Your task to perform on an android device: delete a single message in the gmail app Image 0: 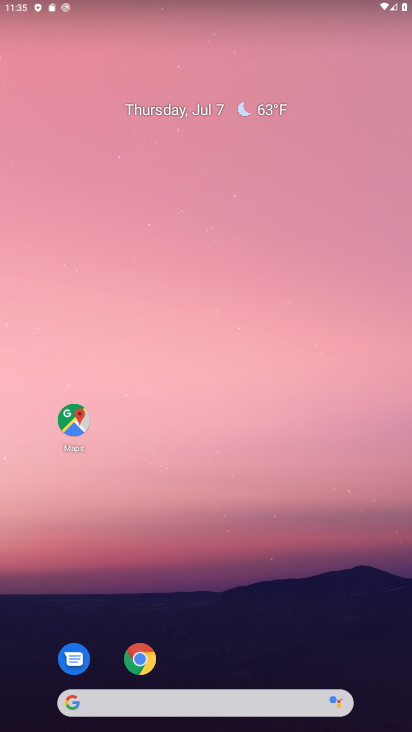
Step 0: drag from (253, 116) to (259, 6)
Your task to perform on an android device: delete a single message in the gmail app Image 1: 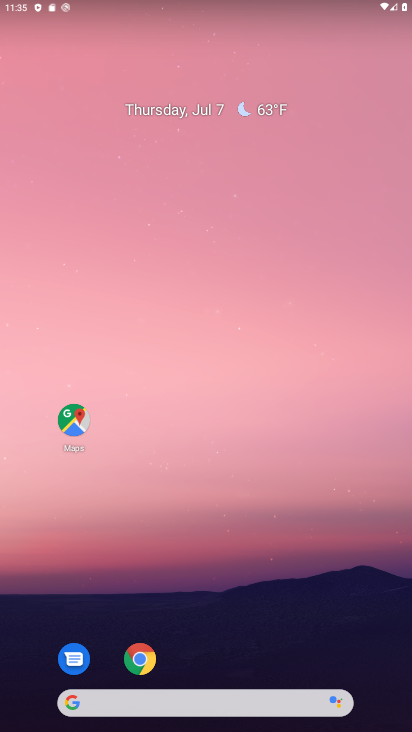
Step 1: drag from (232, 524) to (255, 112)
Your task to perform on an android device: delete a single message in the gmail app Image 2: 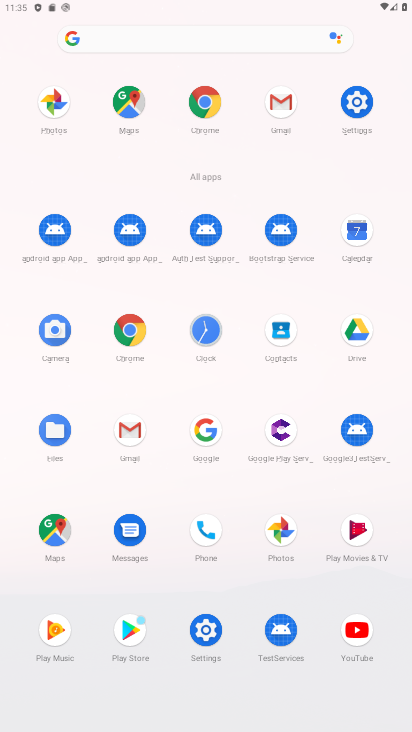
Step 2: click (129, 443)
Your task to perform on an android device: delete a single message in the gmail app Image 3: 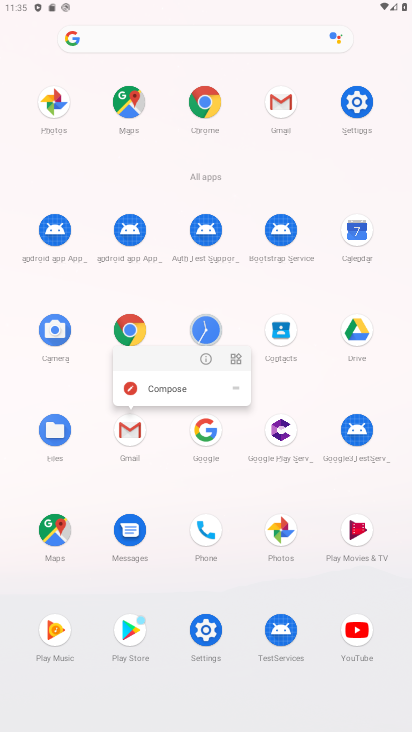
Step 3: click (123, 437)
Your task to perform on an android device: delete a single message in the gmail app Image 4: 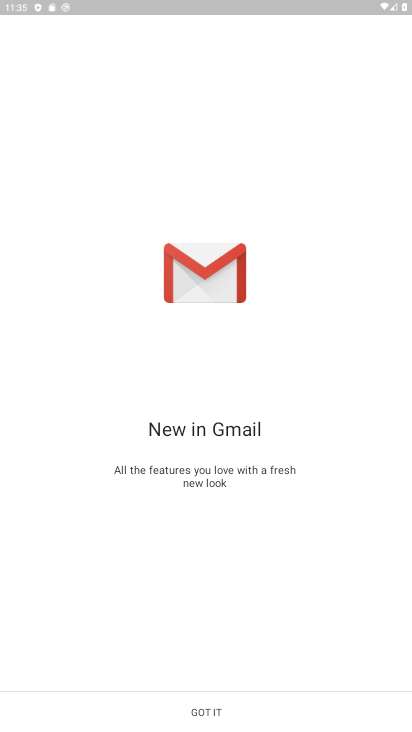
Step 4: click (242, 714)
Your task to perform on an android device: delete a single message in the gmail app Image 5: 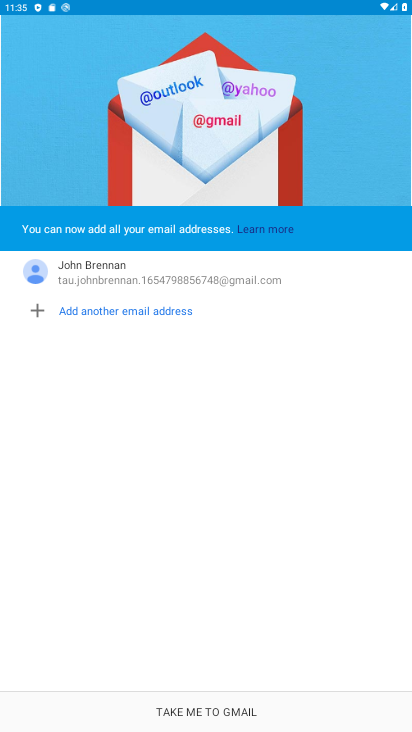
Step 5: click (199, 707)
Your task to perform on an android device: delete a single message in the gmail app Image 6: 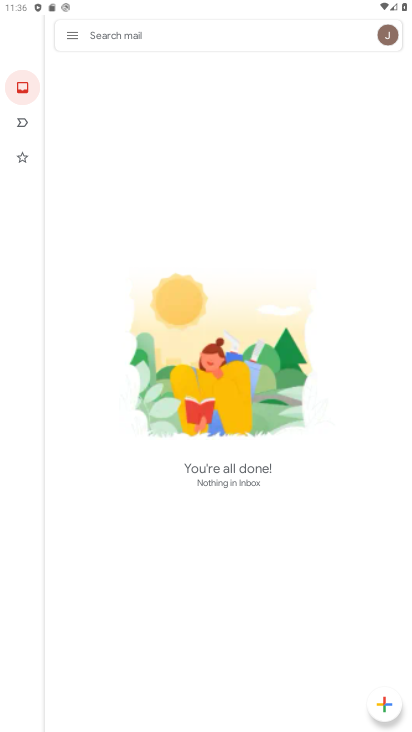
Step 6: task complete